Your task to perform on an android device: toggle translation in the chrome app Image 0: 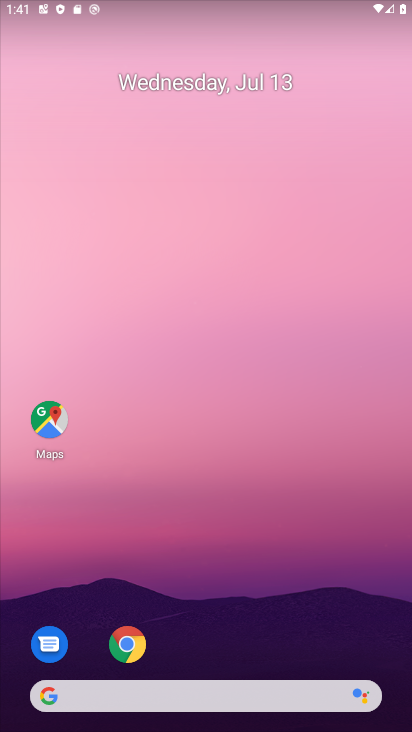
Step 0: click (122, 649)
Your task to perform on an android device: toggle translation in the chrome app Image 1: 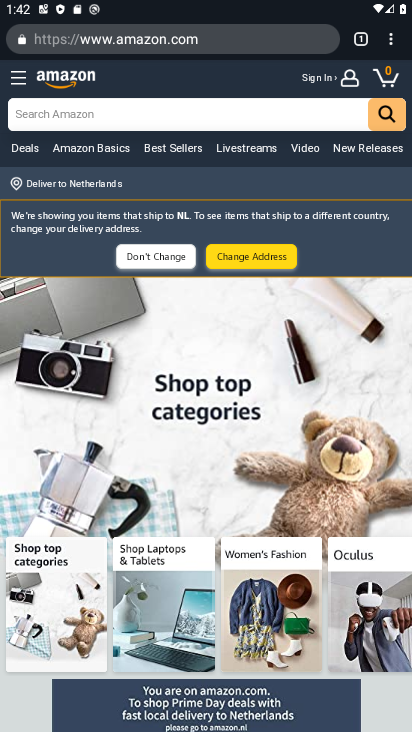
Step 1: drag from (390, 27) to (254, 463)
Your task to perform on an android device: toggle translation in the chrome app Image 2: 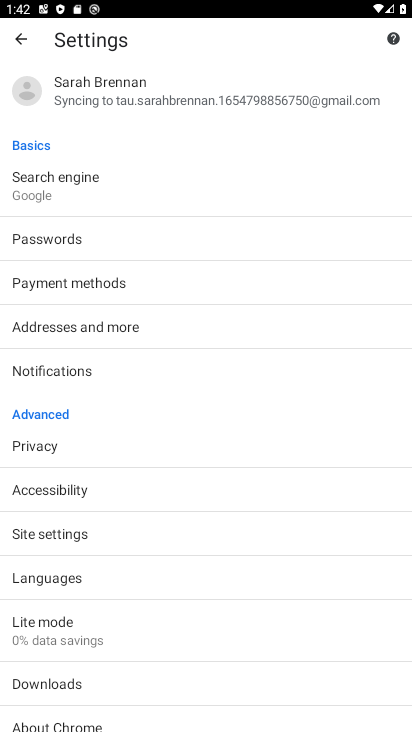
Step 2: click (85, 587)
Your task to perform on an android device: toggle translation in the chrome app Image 3: 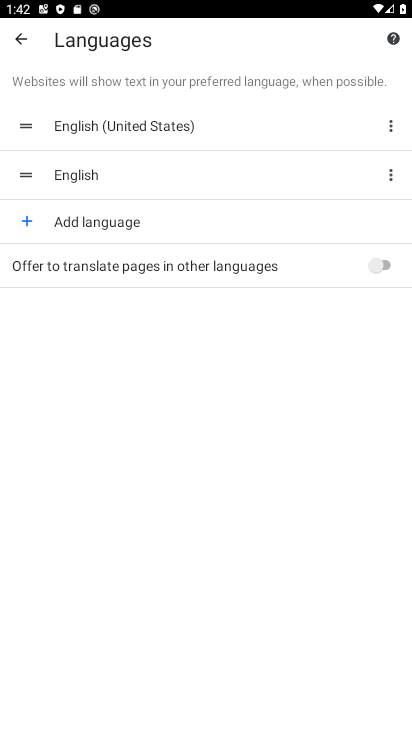
Step 3: click (263, 261)
Your task to perform on an android device: toggle translation in the chrome app Image 4: 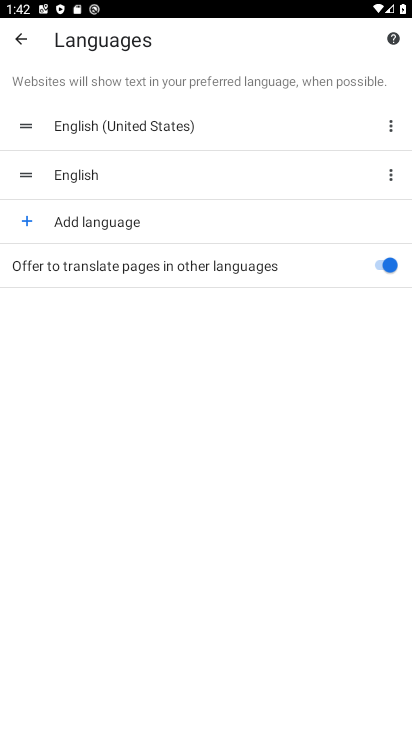
Step 4: task complete